Your task to perform on an android device: turn on showing notifications on the lock screen Image 0: 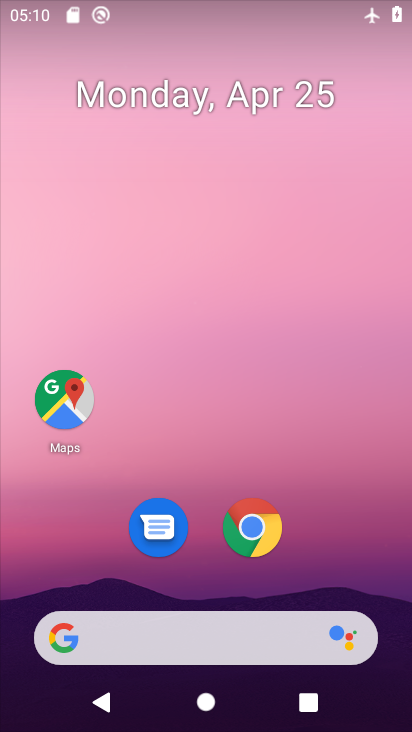
Step 0: drag from (391, 632) to (346, 32)
Your task to perform on an android device: turn on showing notifications on the lock screen Image 1: 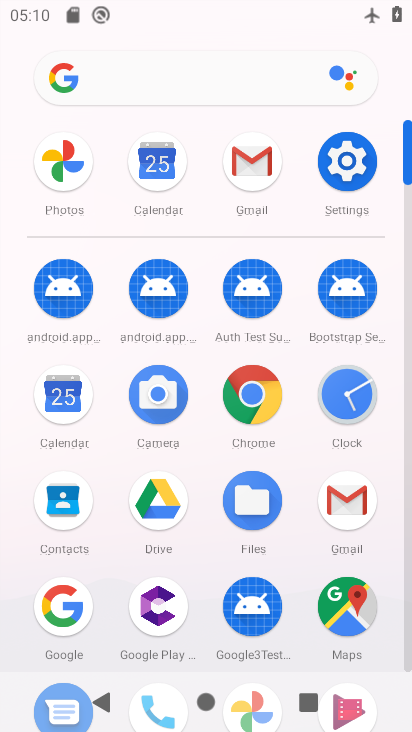
Step 1: click (409, 654)
Your task to perform on an android device: turn on showing notifications on the lock screen Image 2: 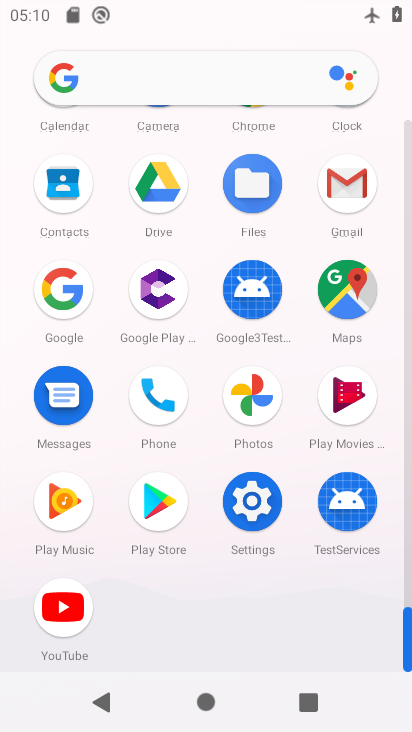
Step 2: click (254, 497)
Your task to perform on an android device: turn on showing notifications on the lock screen Image 3: 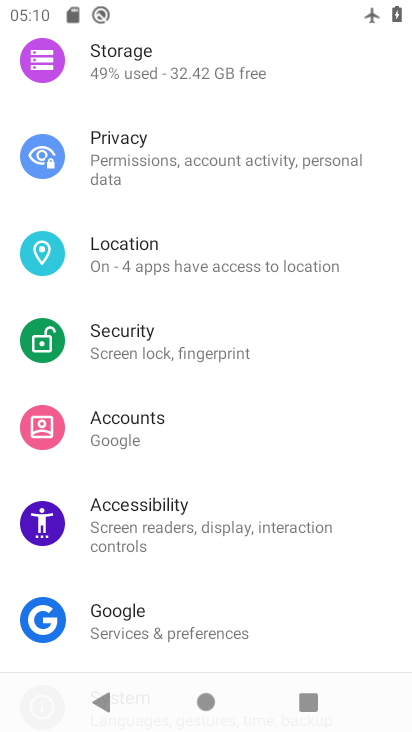
Step 3: drag from (337, 319) to (322, 620)
Your task to perform on an android device: turn on showing notifications on the lock screen Image 4: 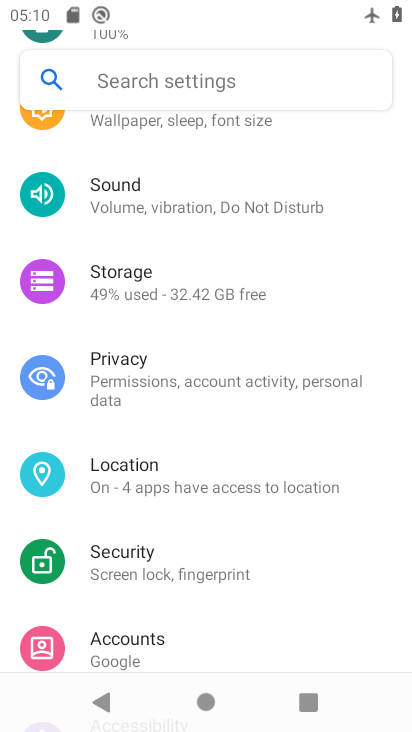
Step 4: drag from (349, 251) to (368, 604)
Your task to perform on an android device: turn on showing notifications on the lock screen Image 5: 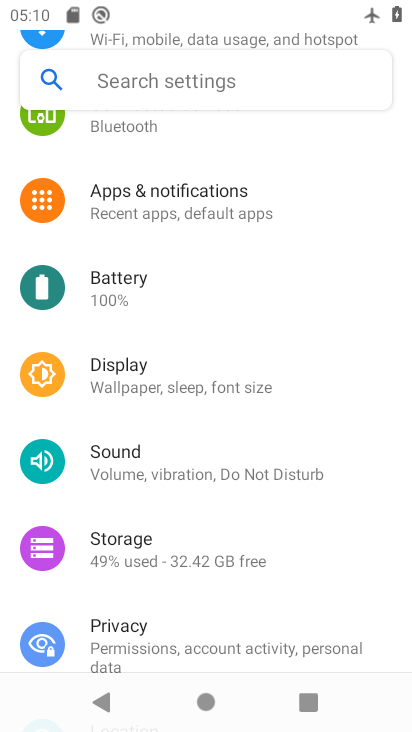
Step 5: drag from (339, 208) to (323, 487)
Your task to perform on an android device: turn on showing notifications on the lock screen Image 6: 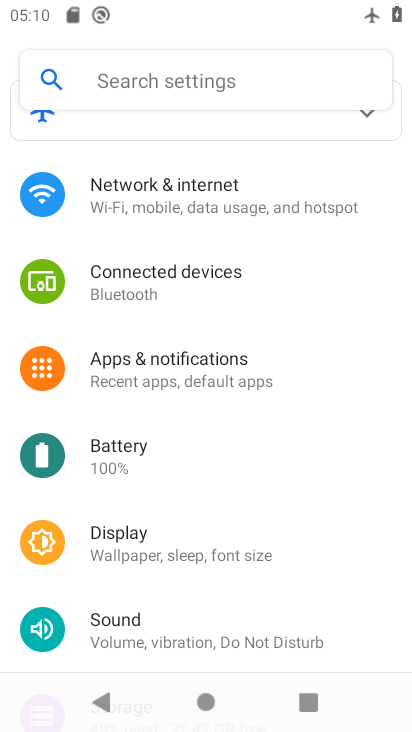
Step 6: click (165, 363)
Your task to perform on an android device: turn on showing notifications on the lock screen Image 7: 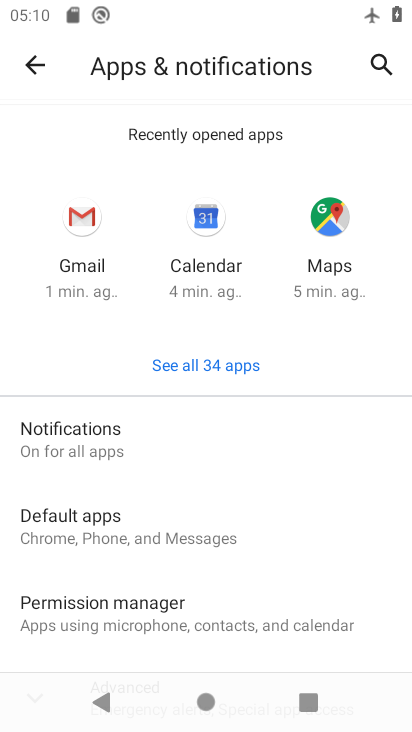
Step 7: click (74, 435)
Your task to perform on an android device: turn on showing notifications on the lock screen Image 8: 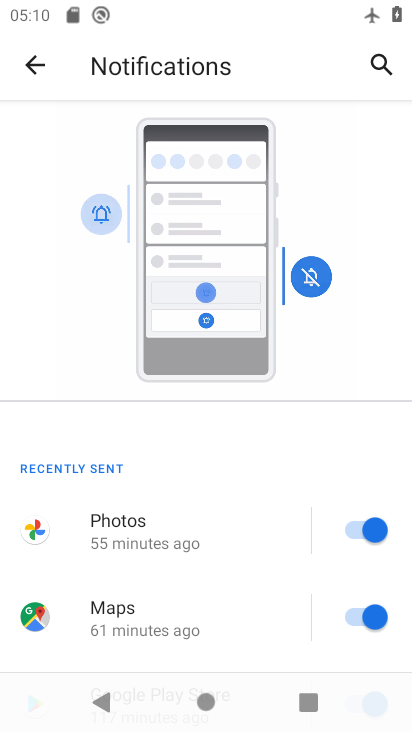
Step 8: click (311, 237)
Your task to perform on an android device: turn on showing notifications on the lock screen Image 9: 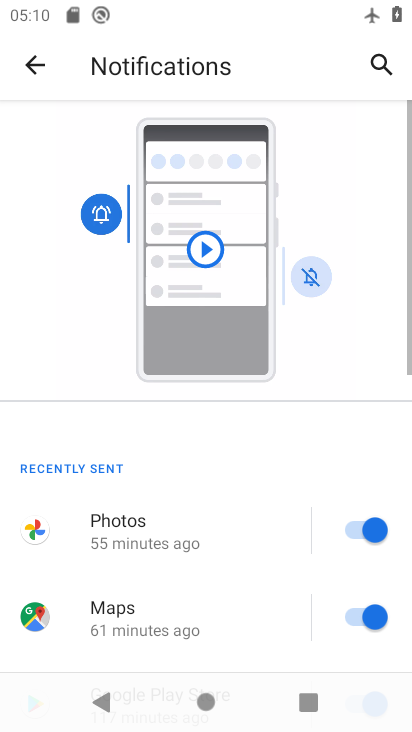
Step 9: drag from (311, 671) to (282, 242)
Your task to perform on an android device: turn on showing notifications on the lock screen Image 10: 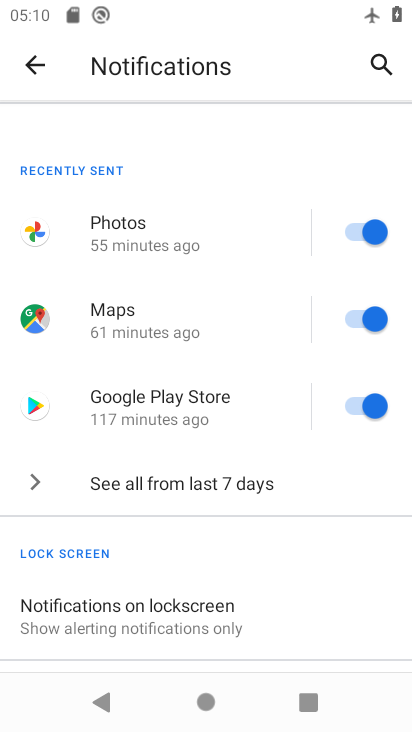
Step 10: drag from (256, 531) to (234, 219)
Your task to perform on an android device: turn on showing notifications on the lock screen Image 11: 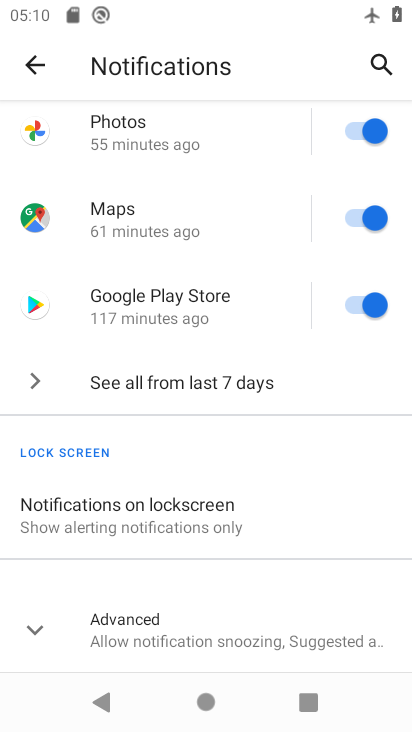
Step 11: click (88, 506)
Your task to perform on an android device: turn on showing notifications on the lock screen Image 12: 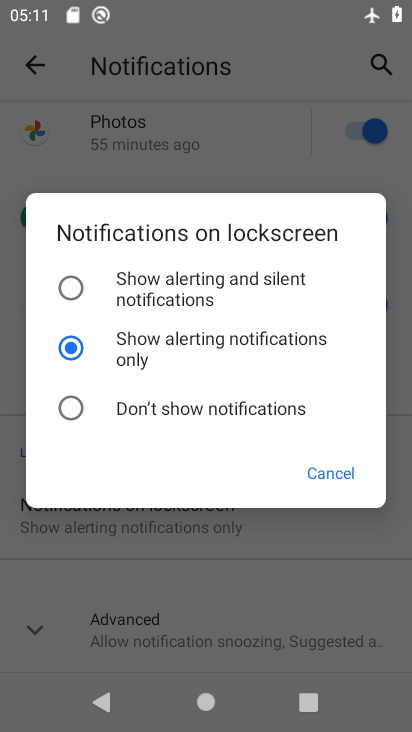
Step 12: click (60, 281)
Your task to perform on an android device: turn on showing notifications on the lock screen Image 13: 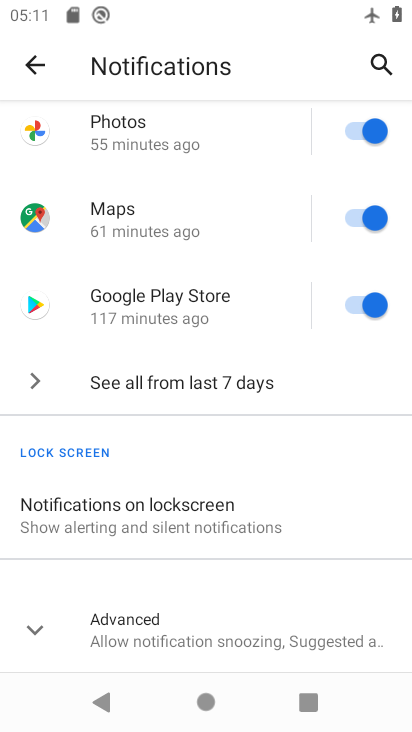
Step 13: task complete